Your task to perform on an android device: set an alarm Image 0: 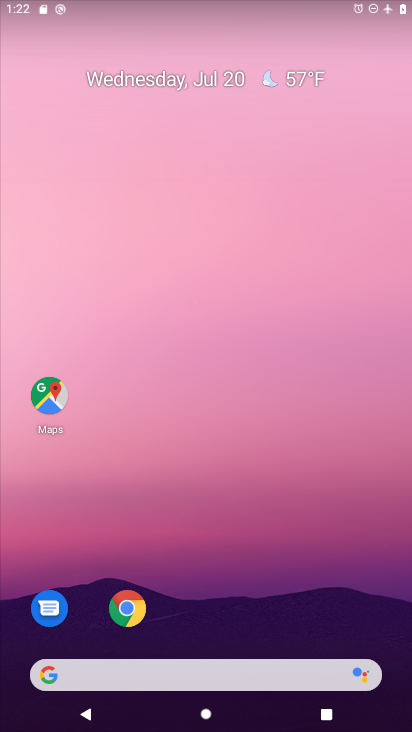
Step 0: drag from (181, 724) to (353, 234)
Your task to perform on an android device: set an alarm Image 1: 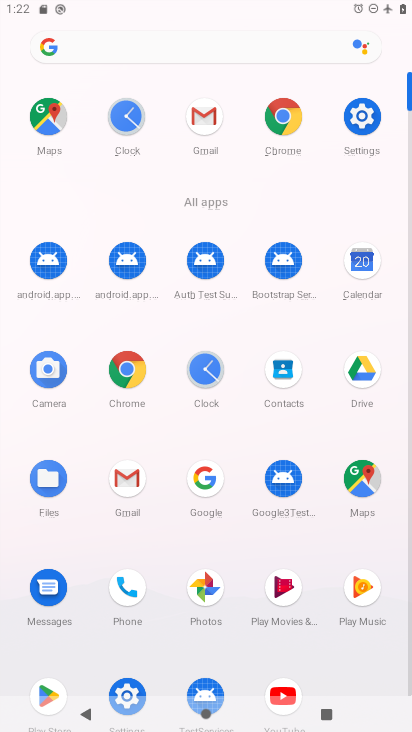
Step 1: click (196, 375)
Your task to perform on an android device: set an alarm Image 2: 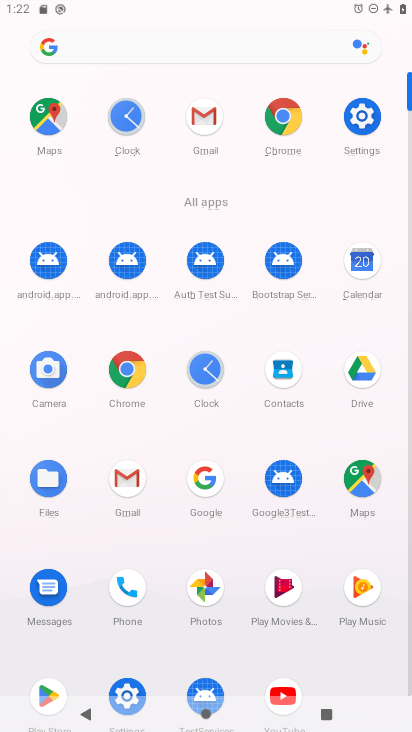
Step 2: click (196, 375)
Your task to perform on an android device: set an alarm Image 3: 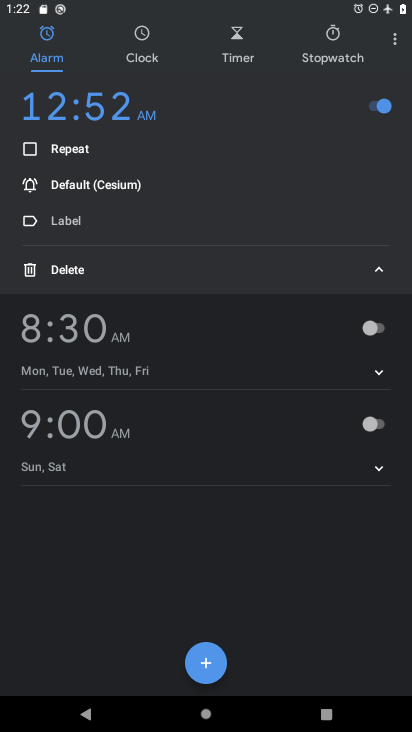
Step 3: click (208, 667)
Your task to perform on an android device: set an alarm Image 4: 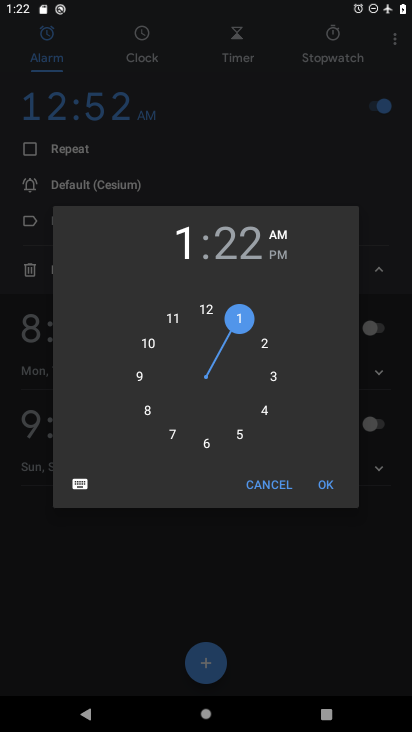
Step 4: click (327, 477)
Your task to perform on an android device: set an alarm Image 5: 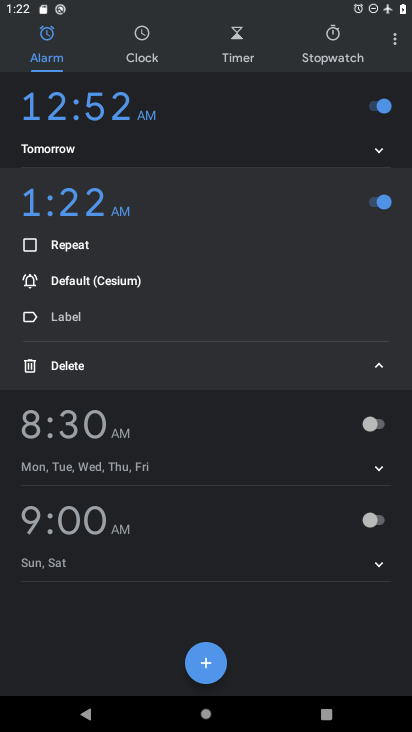
Step 5: task complete